Your task to perform on an android device: check data usage Image 0: 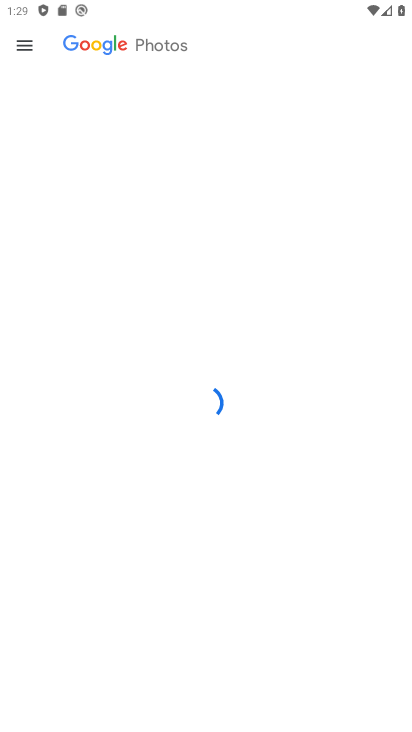
Step 0: press home button
Your task to perform on an android device: check data usage Image 1: 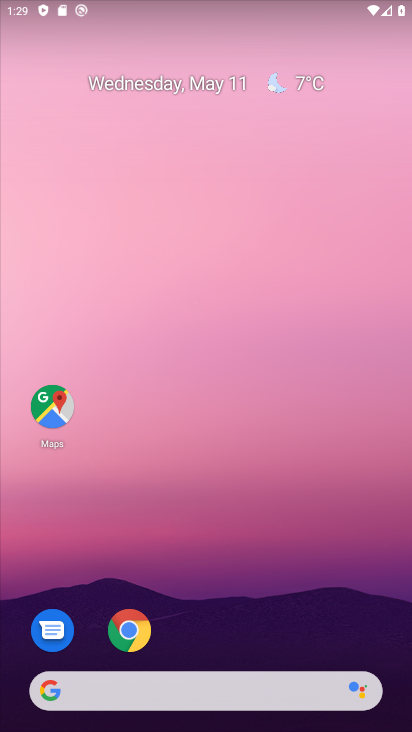
Step 1: drag from (382, 646) to (207, 193)
Your task to perform on an android device: check data usage Image 2: 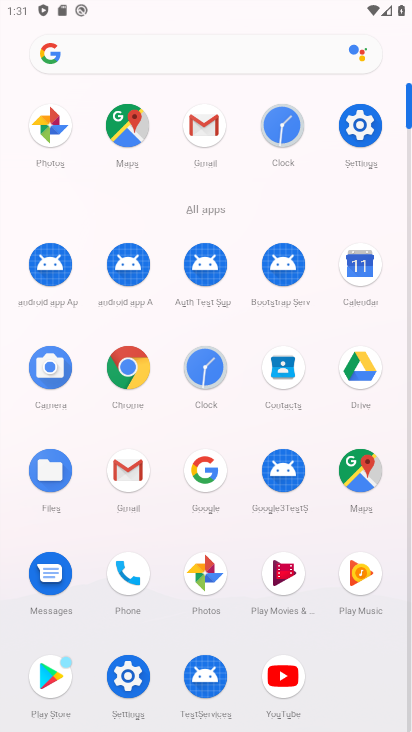
Step 2: click (130, 680)
Your task to perform on an android device: check data usage Image 3: 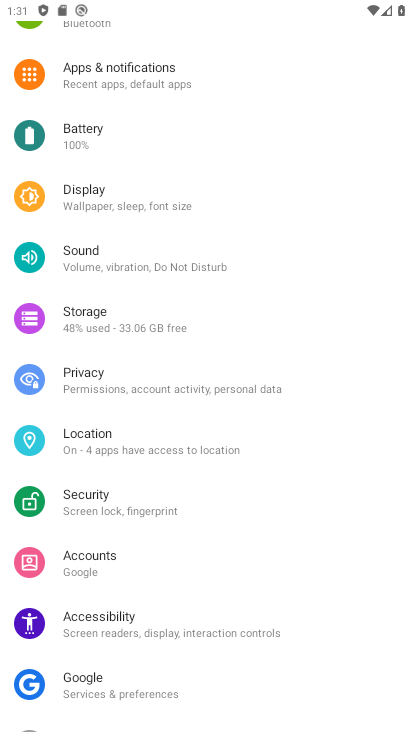
Step 3: drag from (215, 126) to (278, 567)
Your task to perform on an android device: check data usage Image 4: 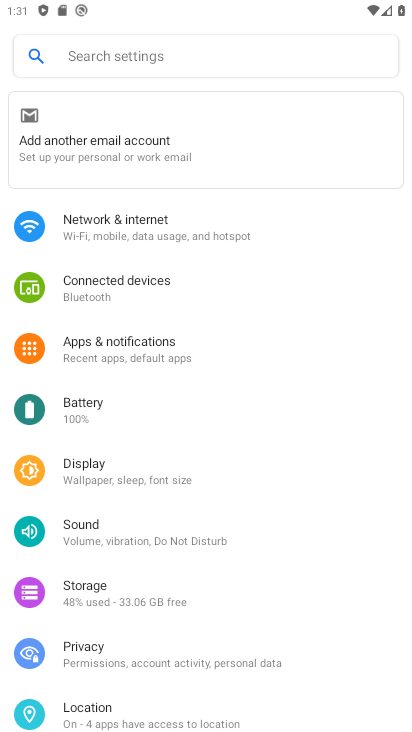
Step 4: click (194, 246)
Your task to perform on an android device: check data usage Image 5: 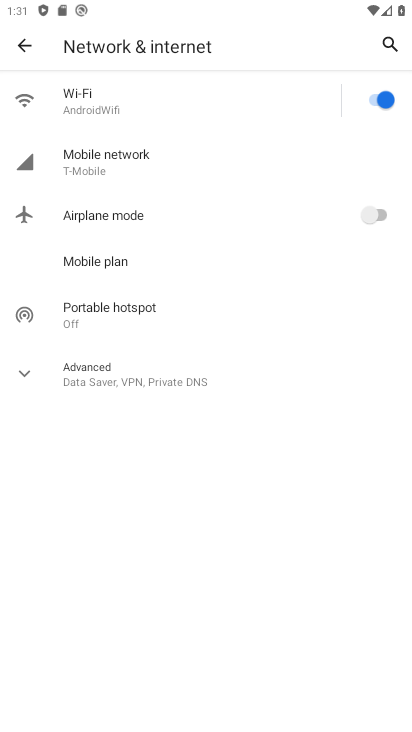
Step 5: click (151, 170)
Your task to perform on an android device: check data usage Image 6: 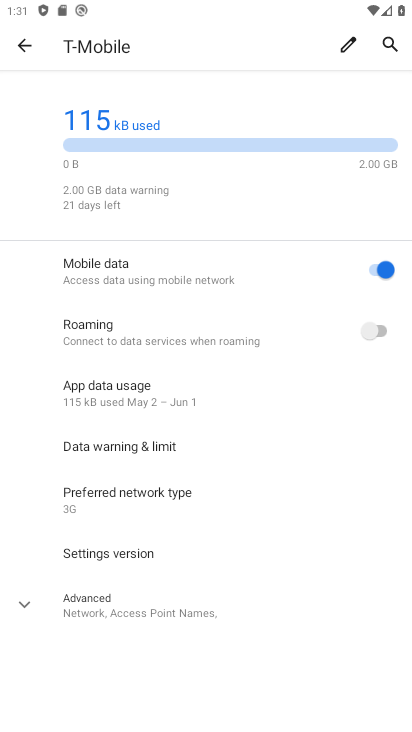
Step 6: click (147, 379)
Your task to perform on an android device: check data usage Image 7: 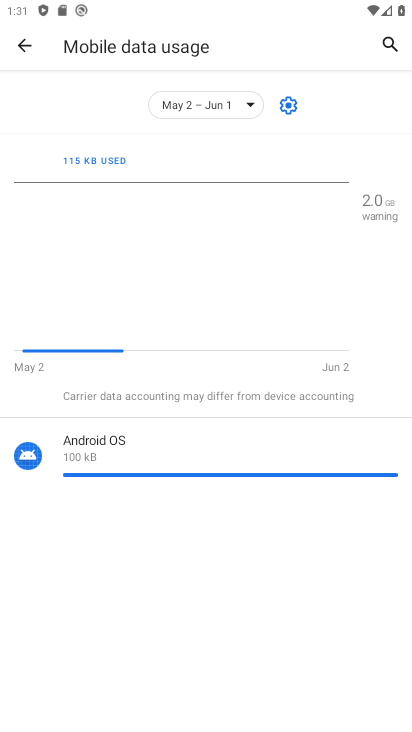
Step 7: task complete